Your task to perform on an android device: Search for seafood restaurants on Google Maps Image 0: 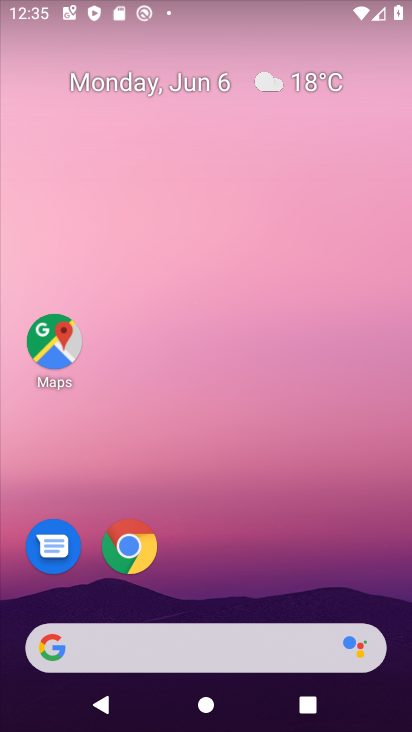
Step 0: click (50, 332)
Your task to perform on an android device: Search for seafood restaurants on Google Maps Image 1: 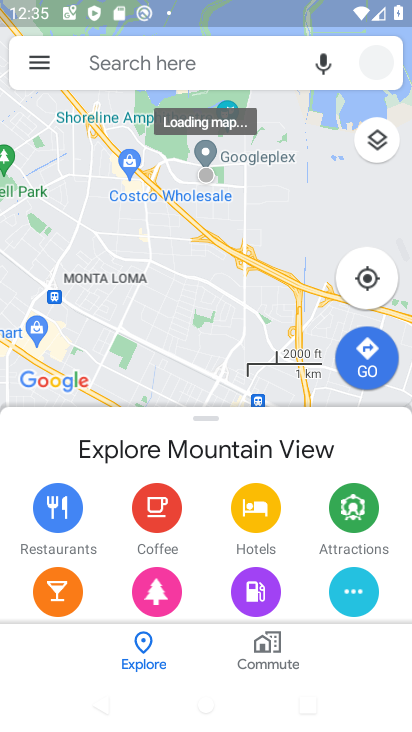
Step 1: click (201, 57)
Your task to perform on an android device: Search for seafood restaurants on Google Maps Image 2: 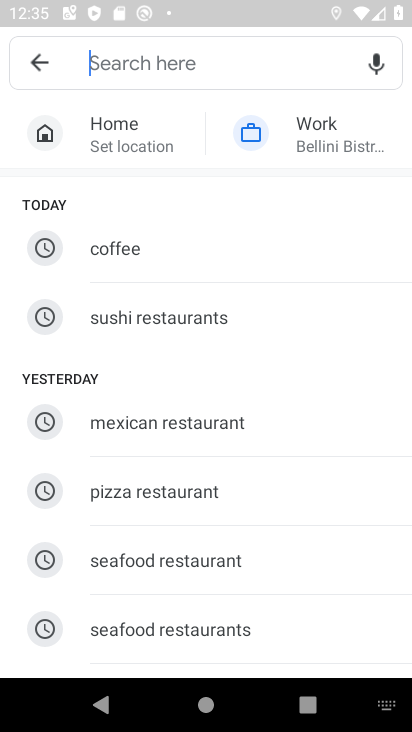
Step 2: click (209, 558)
Your task to perform on an android device: Search for seafood restaurants on Google Maps Image 3: 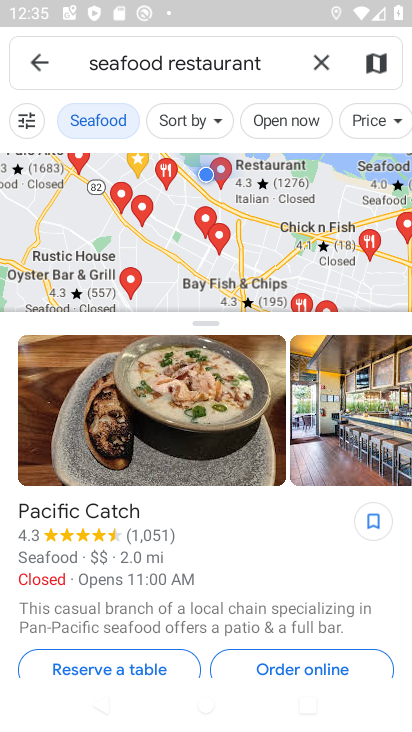
Step 3: task complete